Your task to perform on an android device: Go to Maps Image 0: 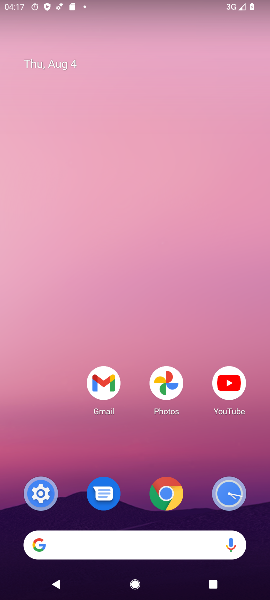
Step 0: drag from (27, 506) to (259, 2)
Your task to perform on an android device: Go to Maps Image 1: 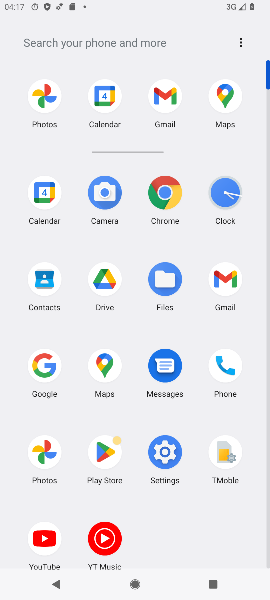
Step 1: click (112, 364)
Your task to perform on an android device: Go to Maps Image 2: 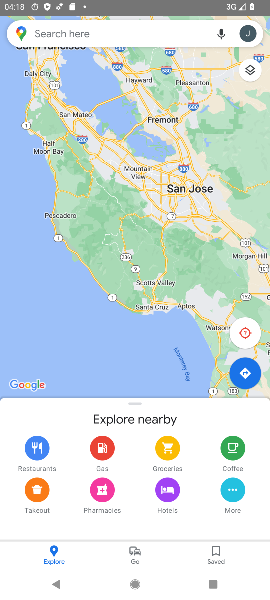
Step 2: task complete